Your task to perform on an android device: Go to notification settings Image 0: 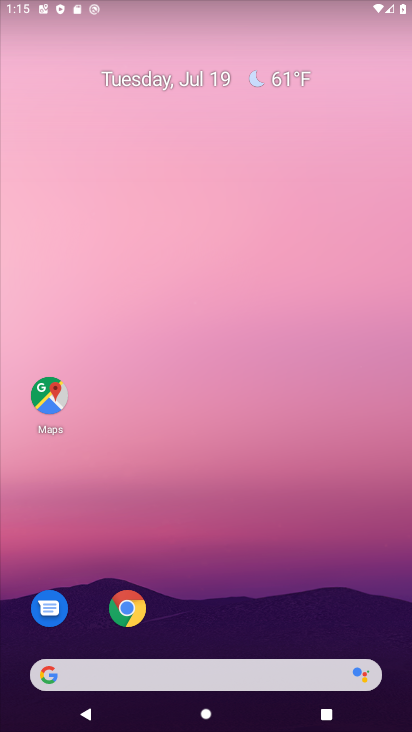
Step 0: drag from (204, 639) to (167, 146)
Your task to perform on an android device: Go to notification settings Image 1: 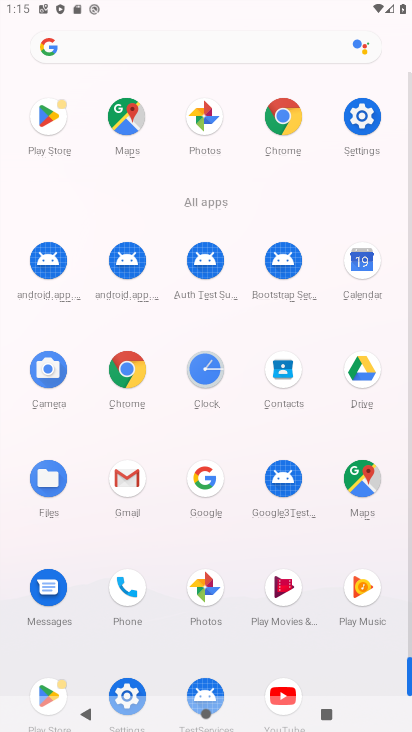
Step 1: click (133, 590)
Your task to perform on an android device: Go to notification settings Image 2: 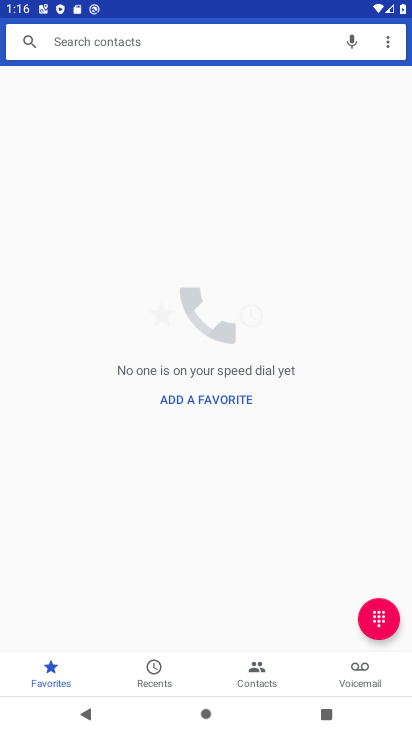
Step 2: press home button
Your task to perform on an android device: Go to notification settings Image 3: 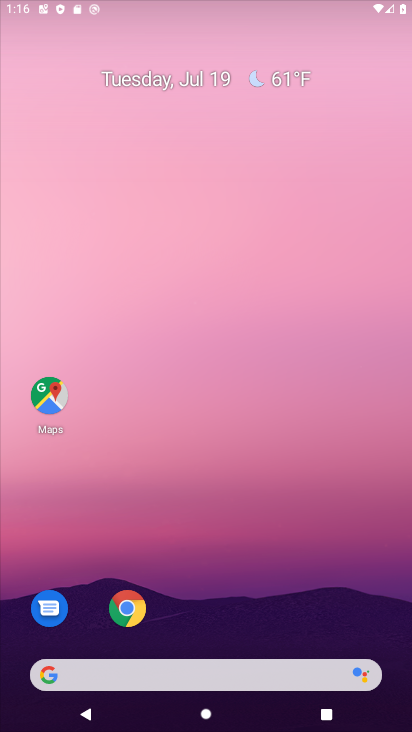
Step 3: drag from (256, 617) to (258, 128)
Your task to perform on an android device: Go to notification settings Image 4: 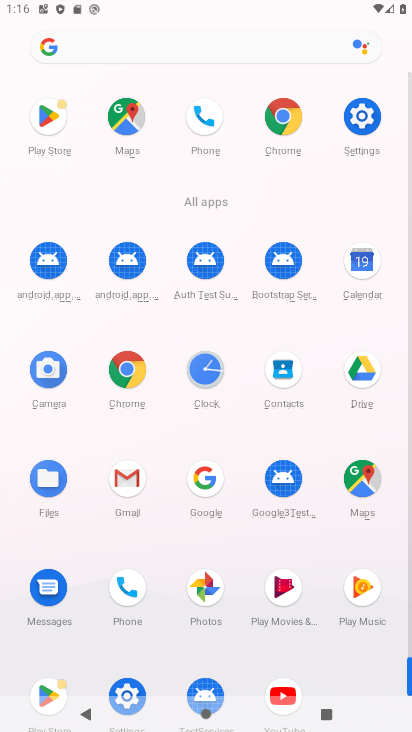
Step 4: click (363, 121)
Your task to perform on an android device: Go to notification settings Image 5: 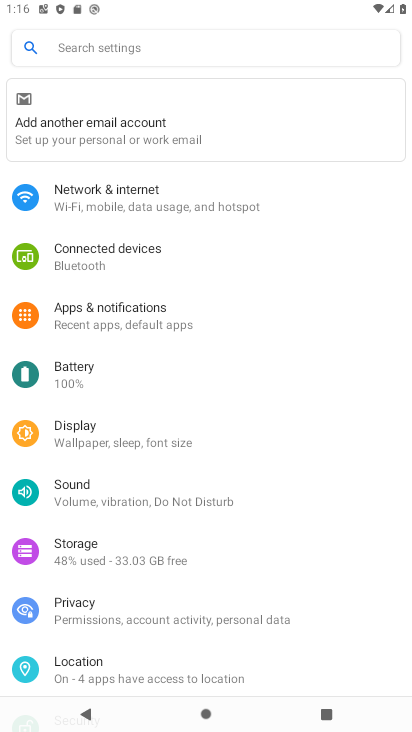
Step 5: click (162, 305)
Your task to perform on an android device: Go to notification settings Image 6: 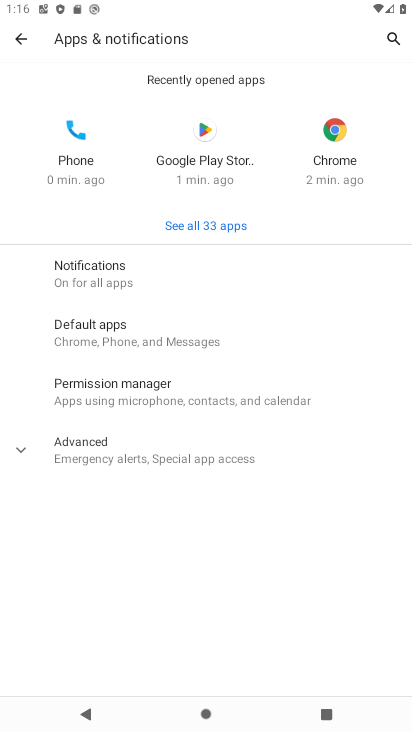
Step 6: click (88, 266)
Your task to perform on an android device: Go to notification settings Image 7: 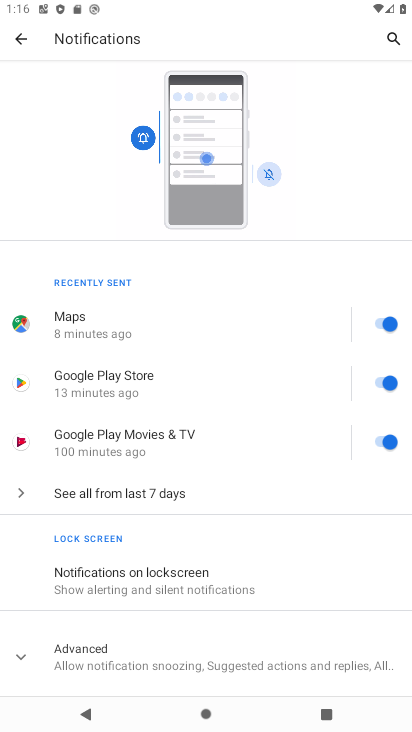
Step 7: task complete